Your task to perform on an android device: Check the weather Image 0: 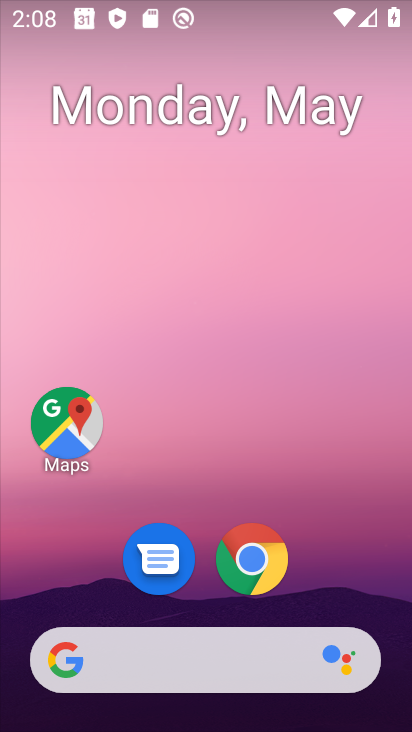
Step 0: drag from (365, 597) to (347, 692)
Your task to perform on an android device: Check the weather Image 1: 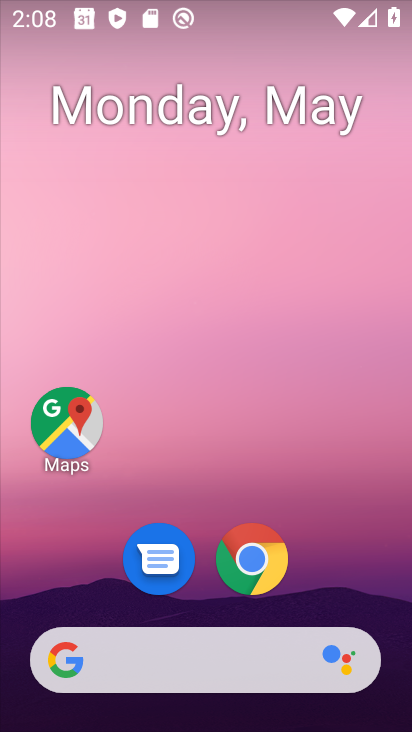
Step 1: click (116, 660)
Your task to perform on an android device: Check the weather Image 2: 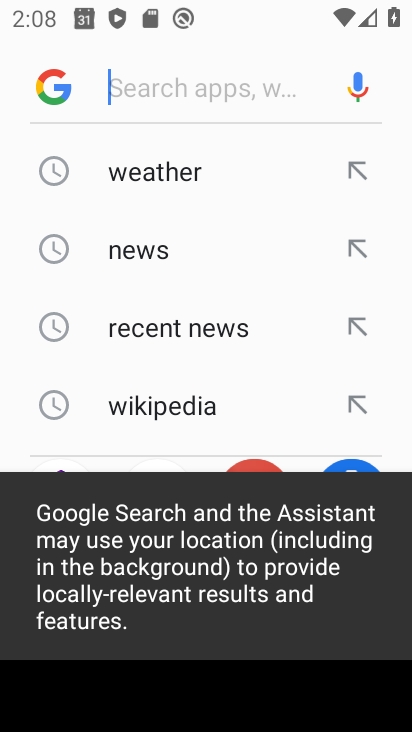
Step 2: click (143, 177)
Your task to perform on an android device: Check the weather Image 3: 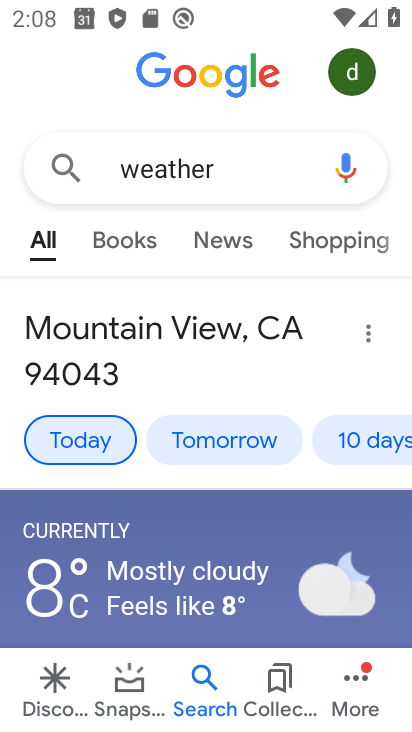
Step 3: task complete